Your task to perform on an android device: toggle improve location accuracy Image 0: 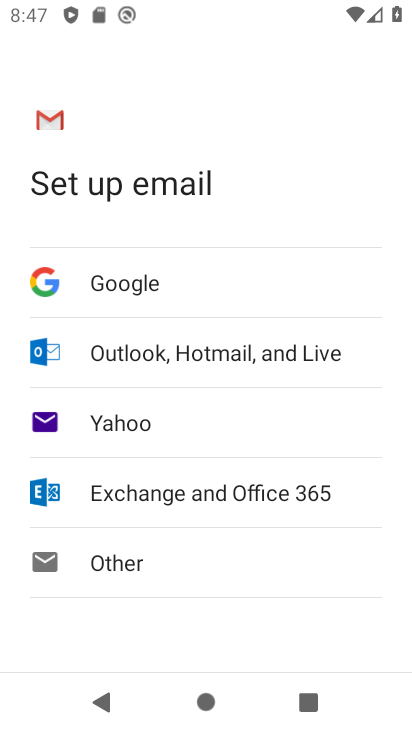
Step 0: press back button
Your task to perform on an android device: toggle improve location accuracy Image 1: 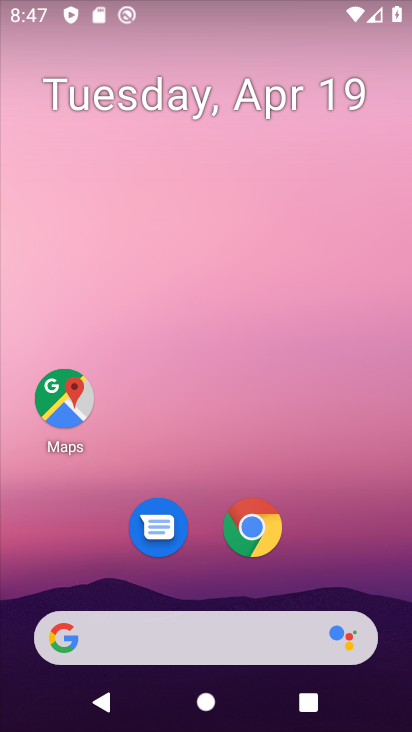
Step 1: drag from (367, 557) to (287, 127)
Your task to perform on an android device: toggle improve location accuracy Image 2: 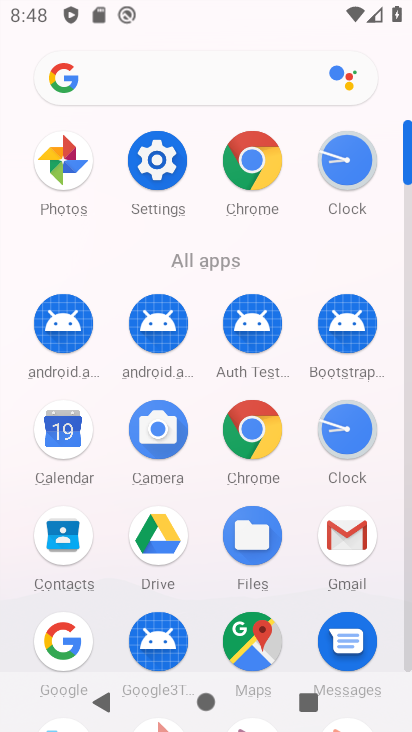
Step 2: click (165, 164)
Your task to perform on an android device: toggle improve location accuracy Image 3: 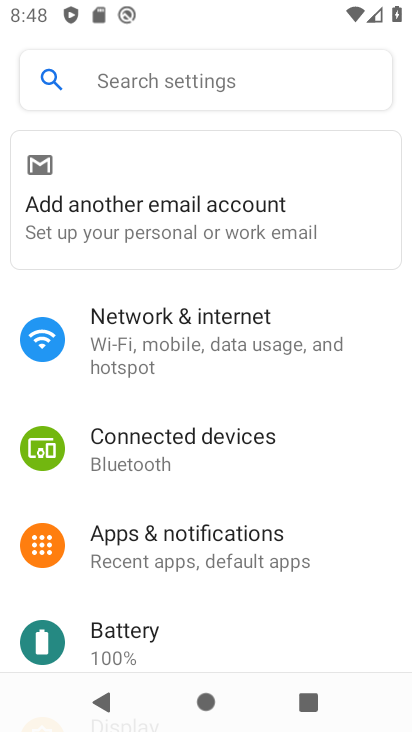
Step 3: drag from (317, 594) to (268, 104)
Your task to perform on an android device: toggle improve location accuracy Image 4: 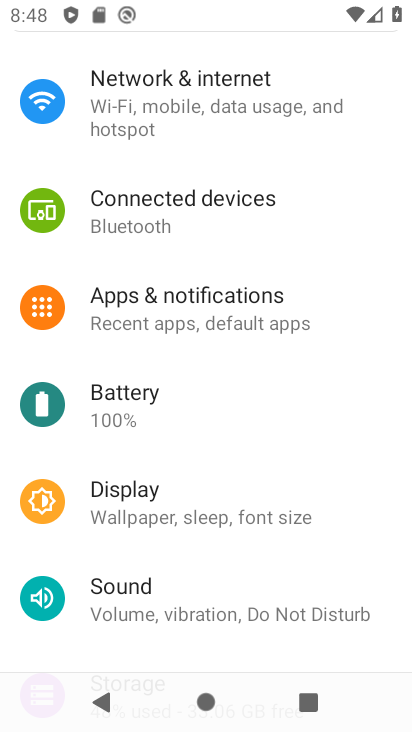
Step 4: drag from (332, 577) to (224, 192)
Your task to perform on an android device: toggle improve location accuracy Image 5: 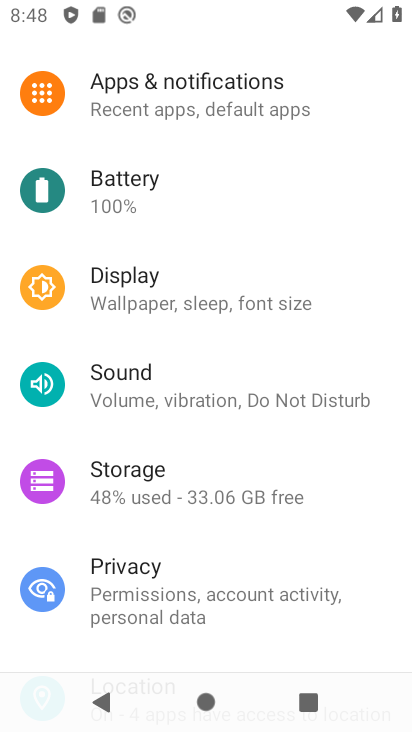
Step 5: drag from (272, 474) to (182, 108)
Your task to perform on an android device: toggle improve location accuracy Image 6: 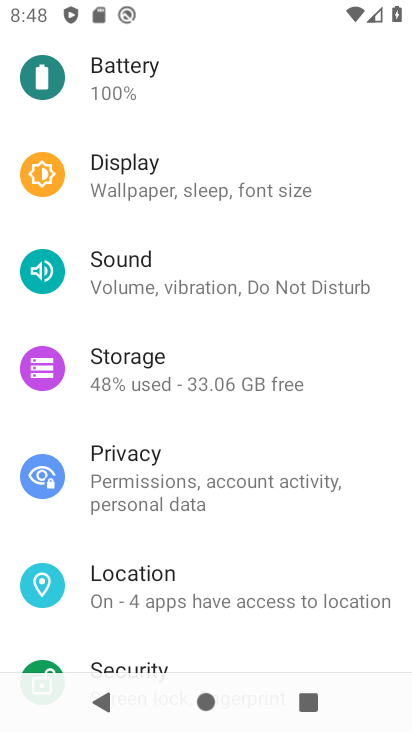
Step 6: click (237, 580)
Your task to perform on an android device: toggle improve location accuracy Image 7: 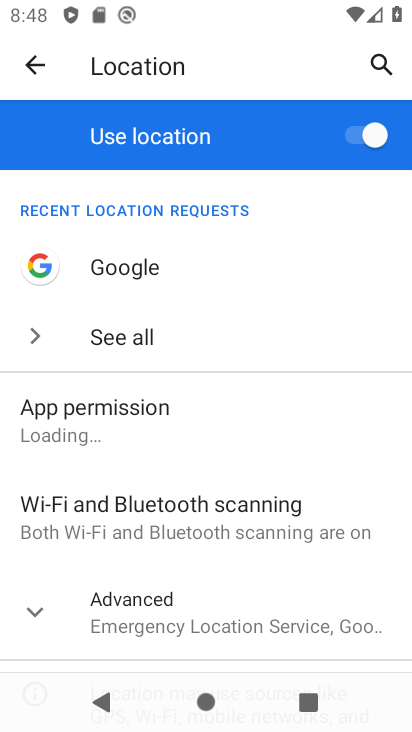
Step 7: drag from (259, 572) to (265, 319)
Your task to perform on an android device: toggle improve location accuracy Image 8: 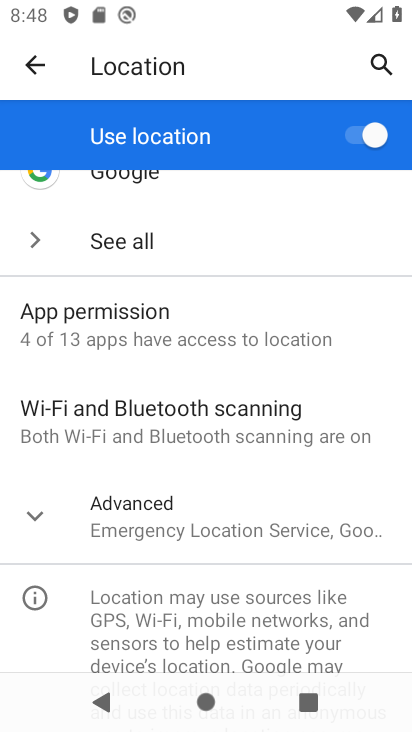
Step 8: click (259, 551)
Your task to perform on an android device: toggle improve location accuracy Image 9: 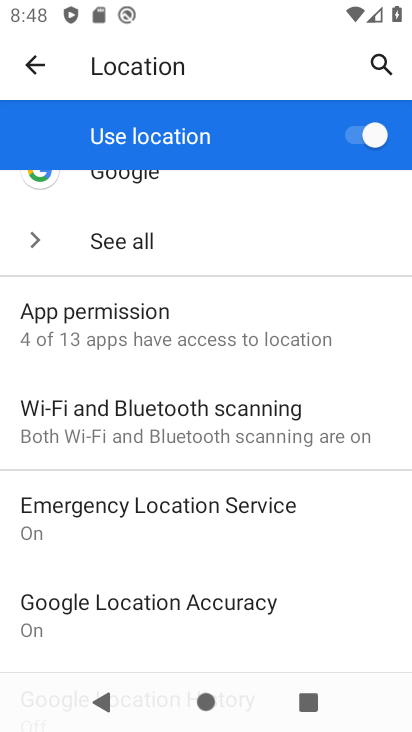
Step 9: drag from (259, 551) to (237, 411)
Your task to perform on an android device: toggle improve location accuracy Image 10: 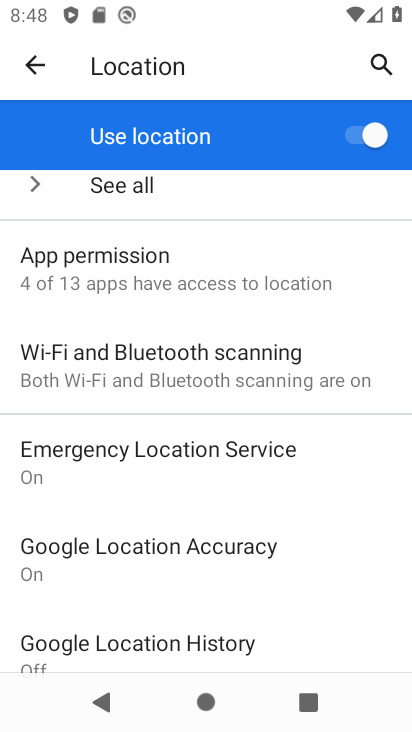
Step 10: click (219, 545)
Your task to perform on an android device: toggle improve location accuracy Image 11: 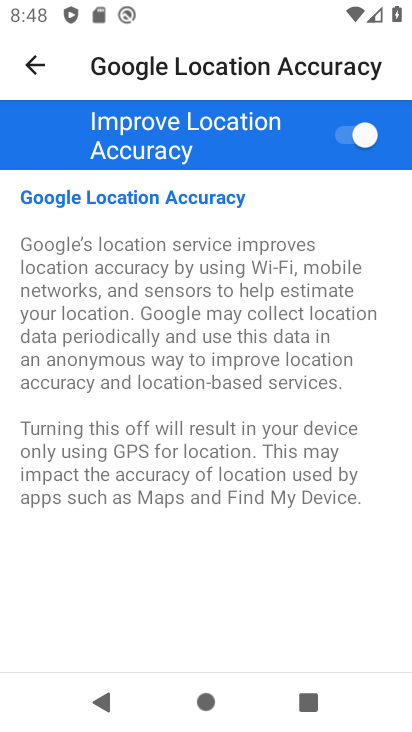
Step 11: click (360, 143)
Your task to perform on an android device: toggle improve location accuracy Image 12: 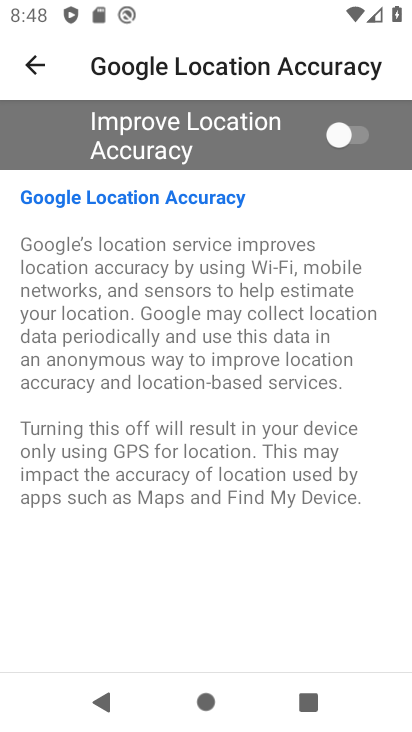
Step 12: task complete